Your task to perform on an android device: visit the assistant section in the google photos Image 0: 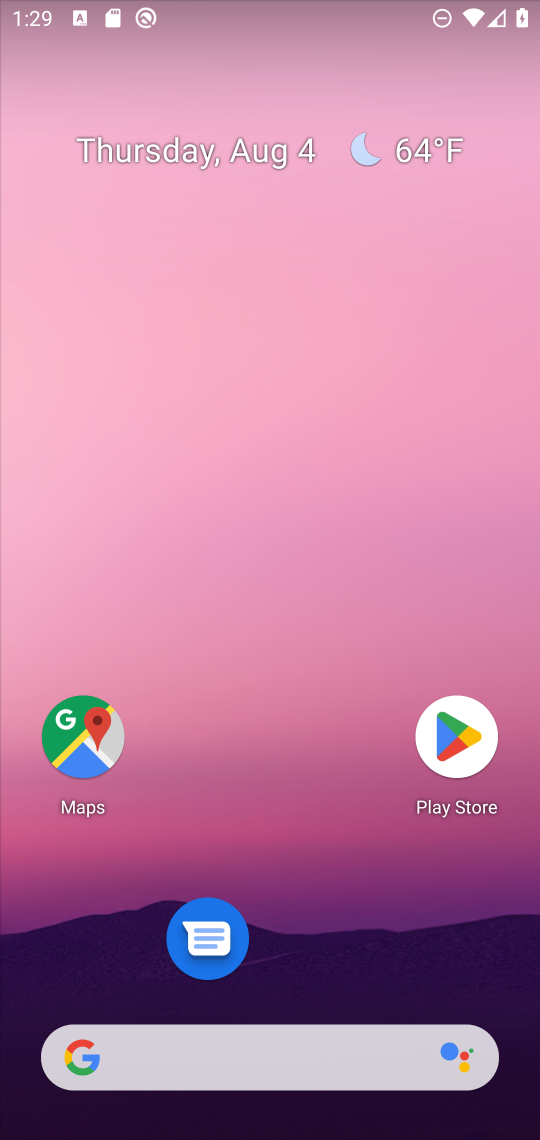
Step 0: drag from (208, 779) to (430, 262)
Your task to perform on an android device: visit the assistant section in the google photos Image 1: 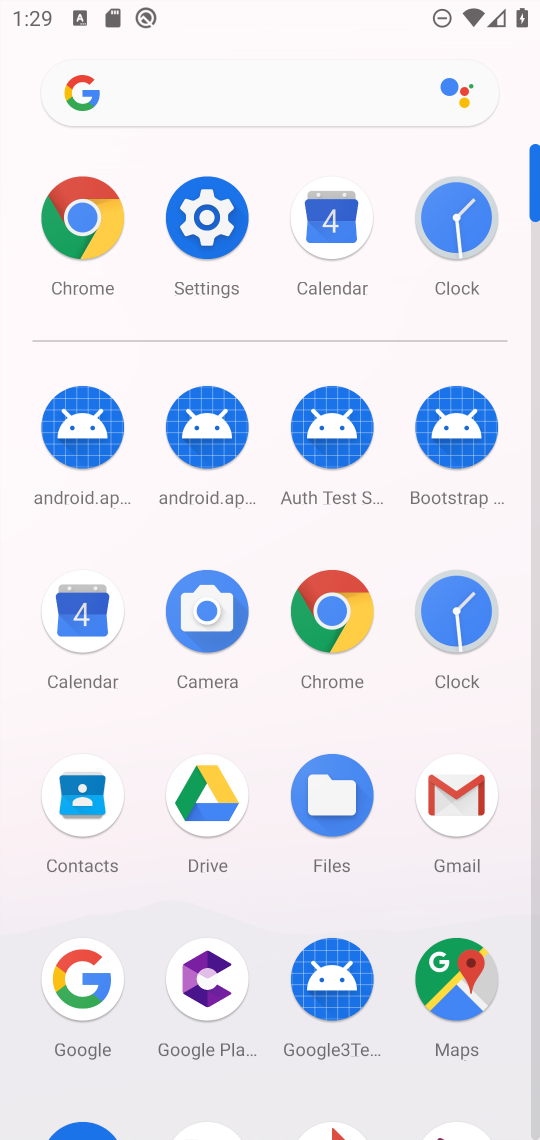
Step 1: drag from (283, 939) to (365, 57)
Your task to perform on an android device: visit the assistant section in the google photos Image 2: 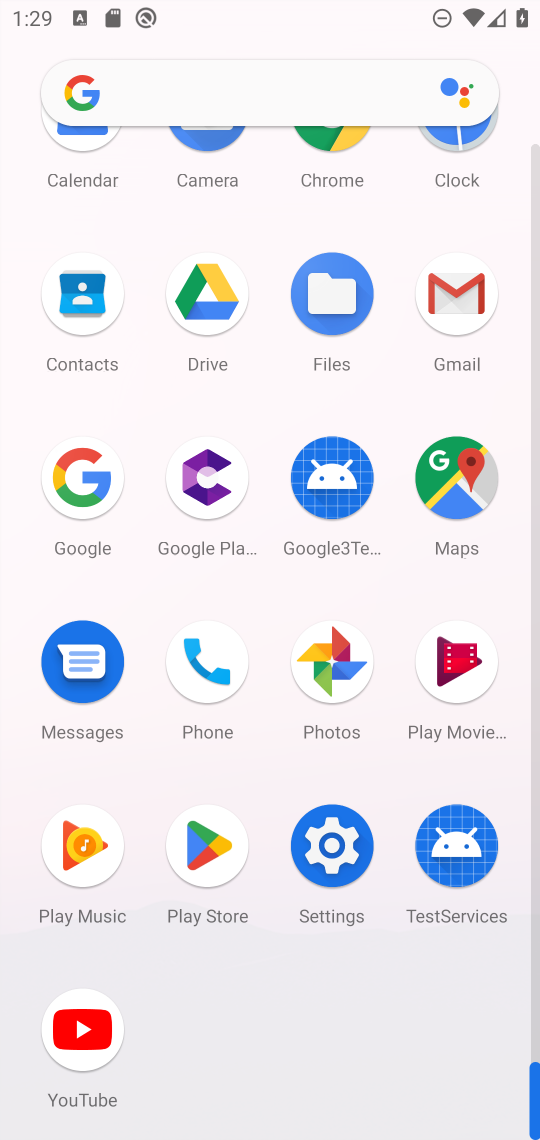
Step 2: click (385, 633)
Your task to perform on an android device: visit the assistant section in the google photos Image 3: 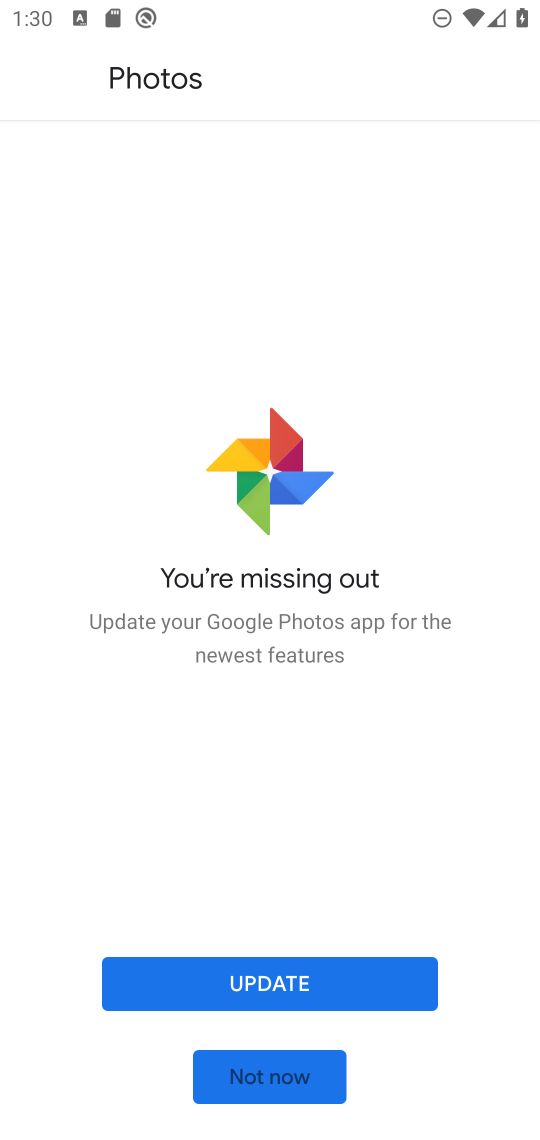
Step 3: click (382, 983)
Your task to perform on an android device: visit the assistant section in the google photos Image 4: 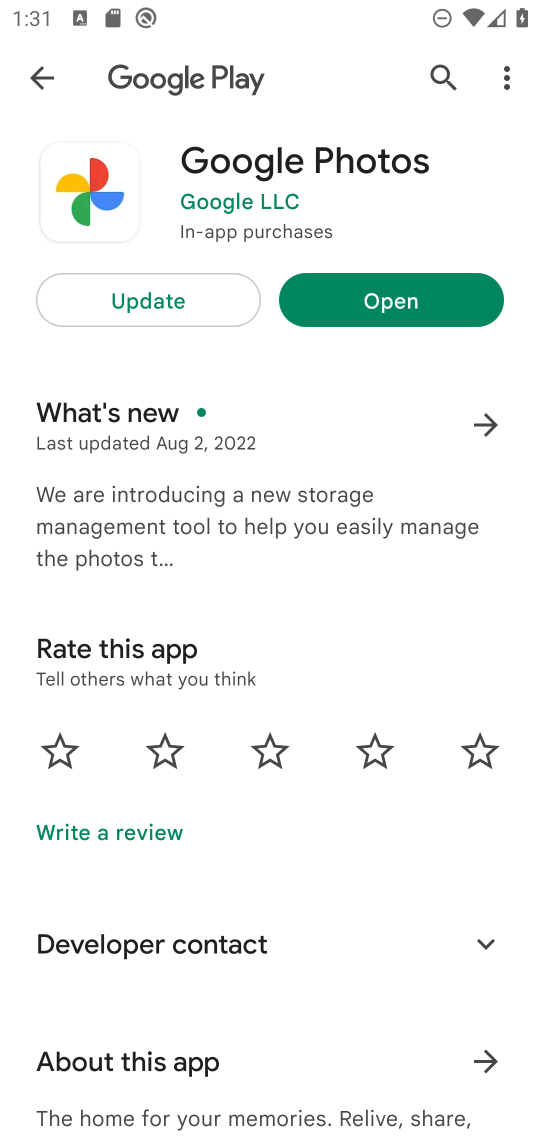
Step 4: click (195, 300)
Your task to perform on an android device: visit the assistant section in the google photos Image 5: 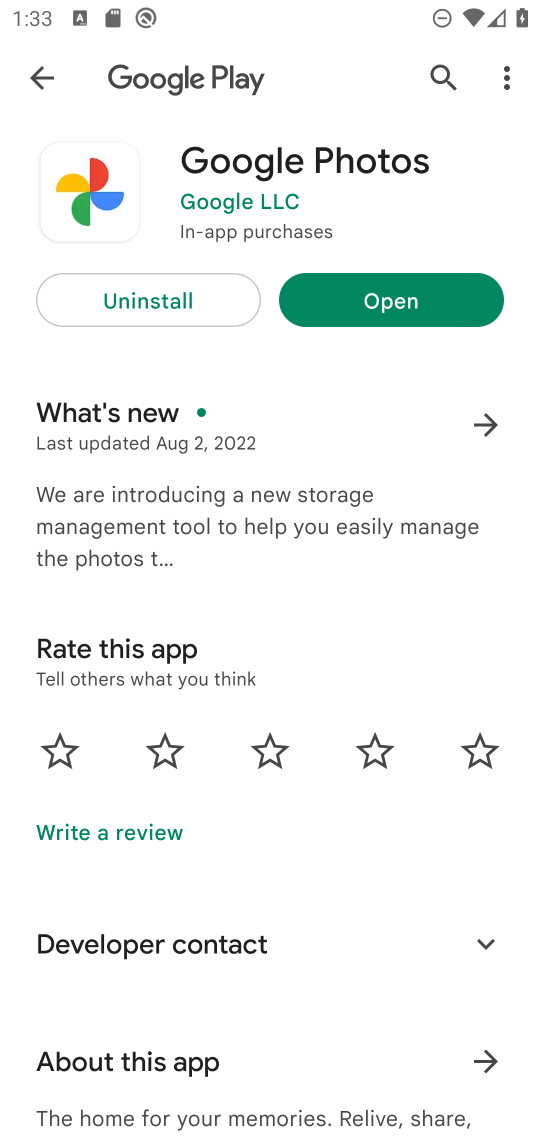
Step 5: click (425, 309)
Your task to perform on an android device: visit the assistant section in the google photos Image 6: 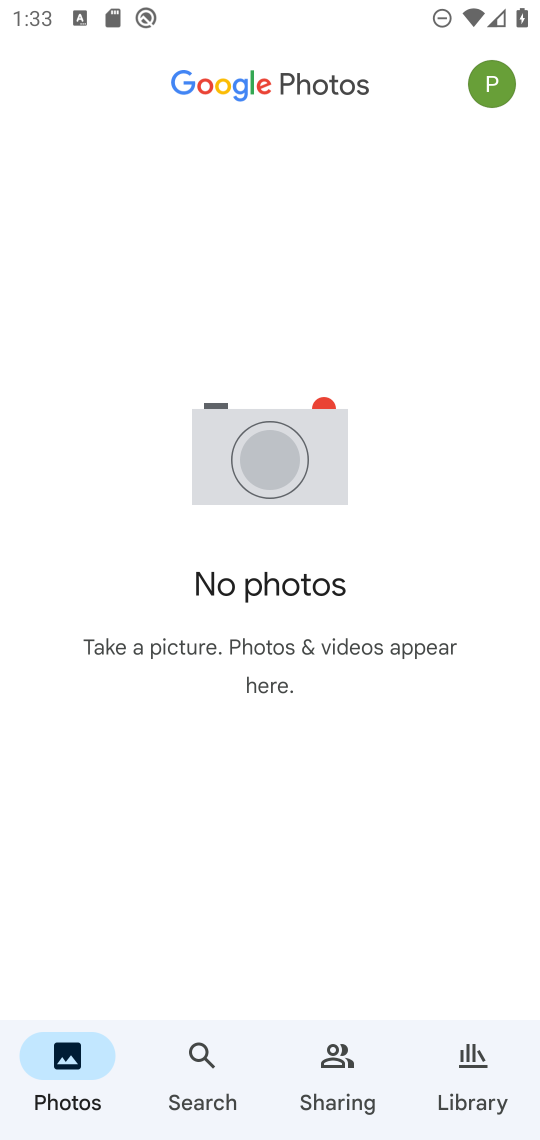
Step 6: task complete